Your task to perform on an android device: toggle location history Image 0: 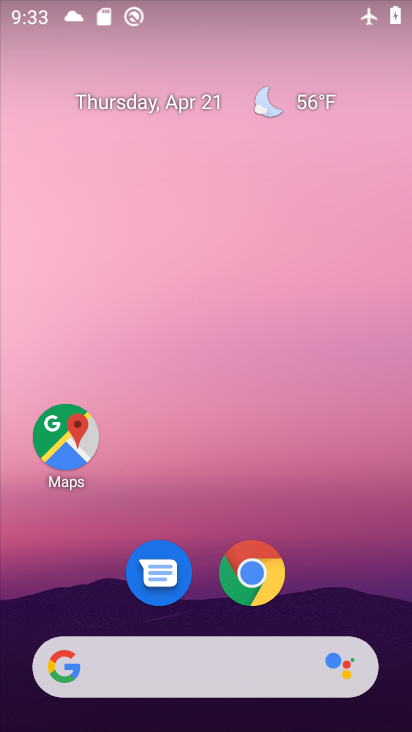
Step 0: drag from (181, 513) to (257, 0)
Your task to perform on an android device: toggle location history Image 1: 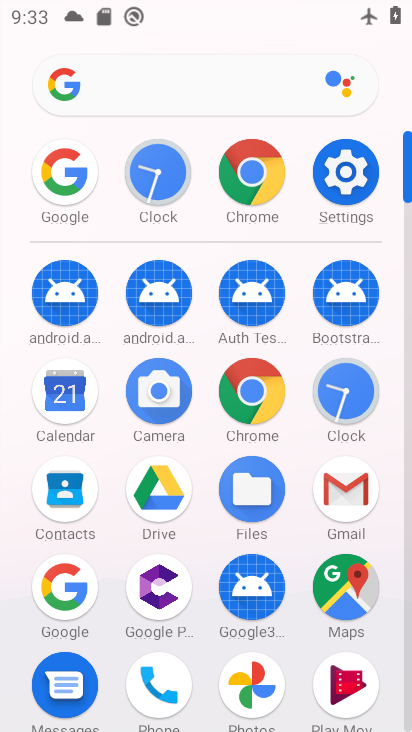
Step 1: click (345, 174)
Your task to perform on an android device: toggle location history Image 2: 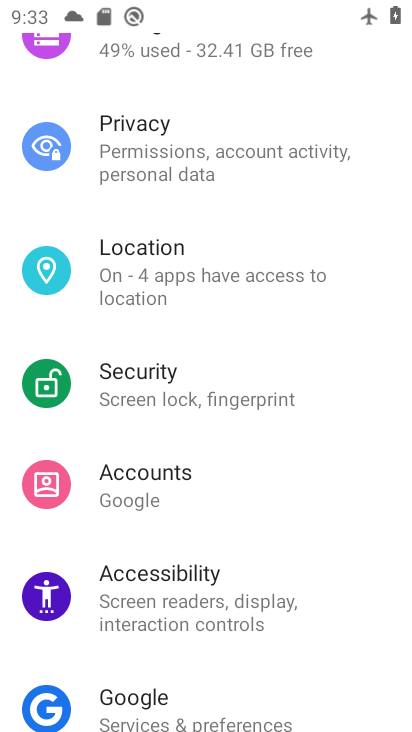
Step 2: click (174, 249)
Your task to perform on an android device: toggle location history Image 3: 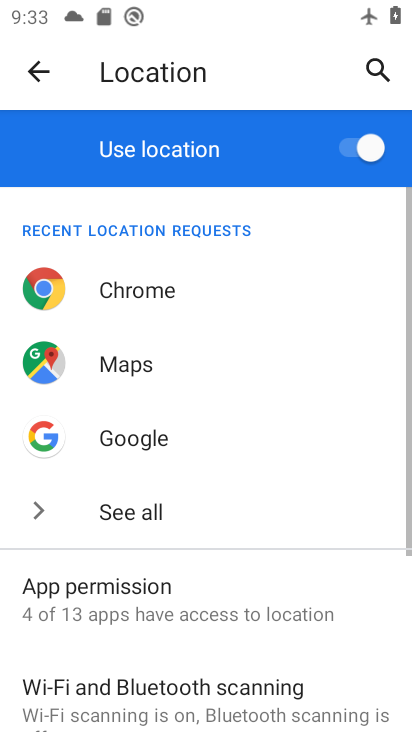
Step 3: drag from (170, 640) to (206, 506)
Your task to perform on an android device: toggle location history Image 4: 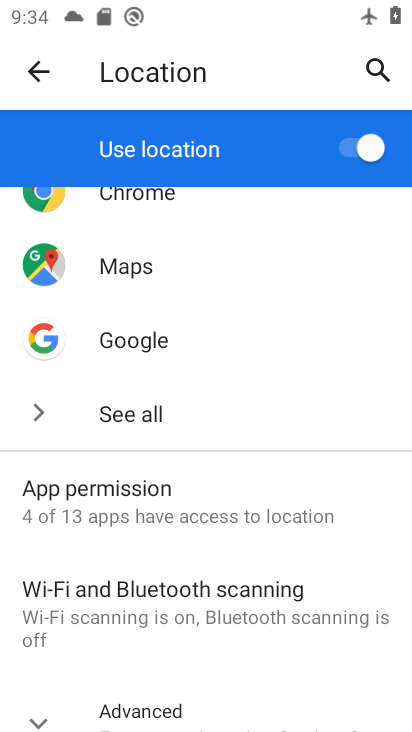
Step 4: drag from (160, 651) to (239, 497)
Your task to perform on an android device: toggle location history Image 5: 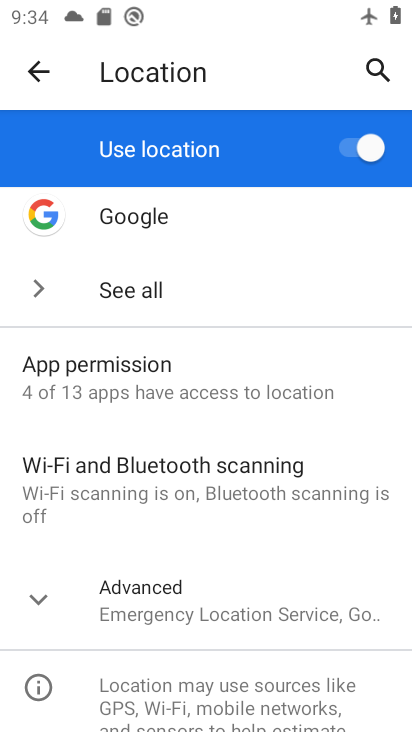
Step 5: click (242, 613)
Your task to perform on an android device: toggle location history Image 6: 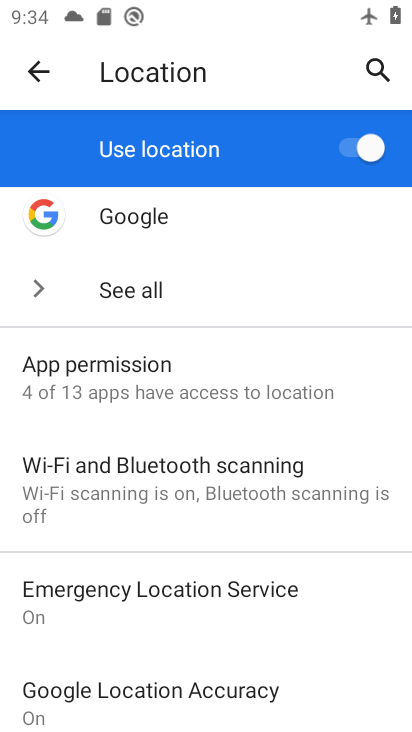
Step 6: drag from (219, 650) to (269, 478)
Your task to perform on an android device: toggle location history Image 7: 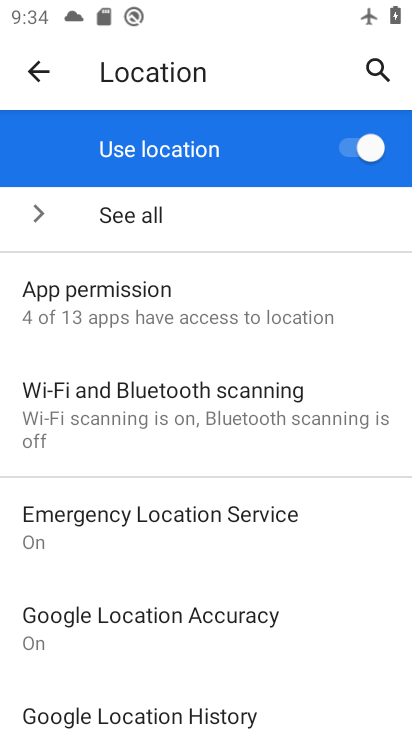
Step 7: drag from (190, 666) to (290, 536)
Your task to perform on an android device: toggle location history Image 8: 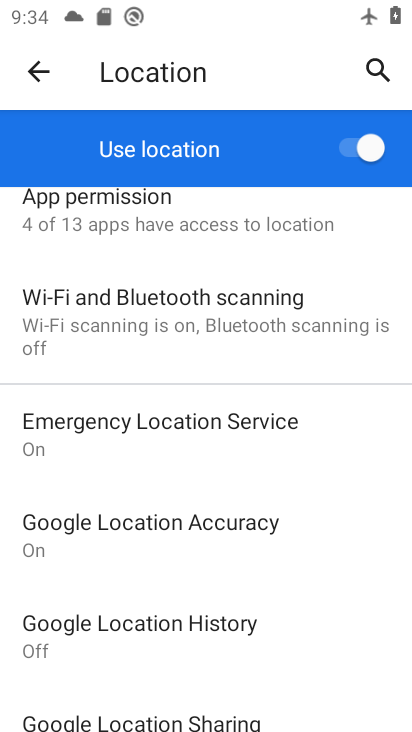
Step 8: click (143, 625)
Your task to perform on an android device: toggle location history Image 9: 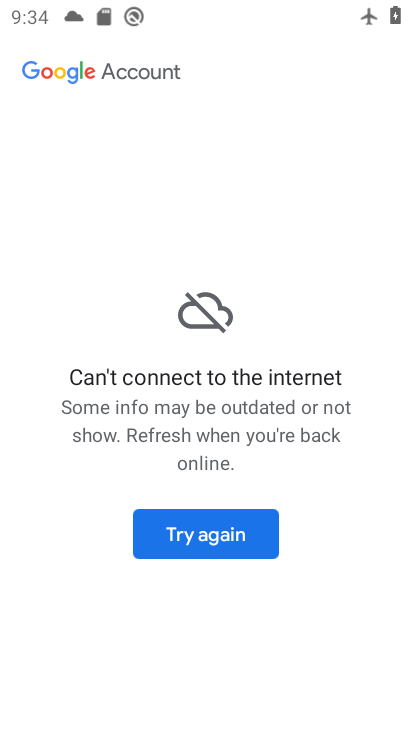
Step 9: task complete